Your task to perform on an android device: Open Youtube and go to the subscriptions tab Image 0: 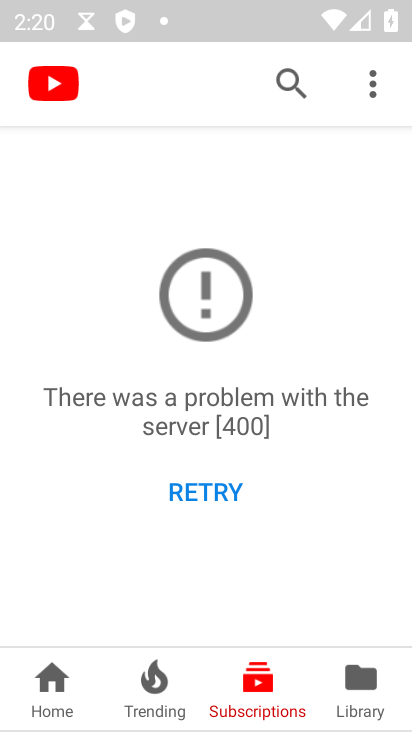
Step 0: task complete